Your task to perform on an android device: toggle show notifications on the lock screen Image 0: 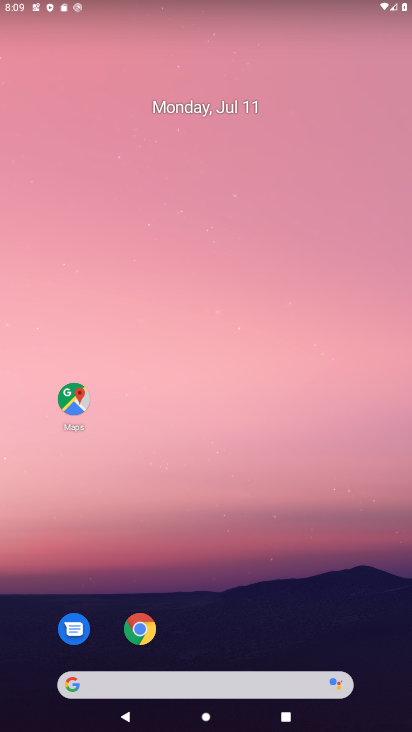
Step 0: drag from (254, 639) to (211, 133)
Your task to perform on an android device: toggle show notifications on the lock screen Image 1: 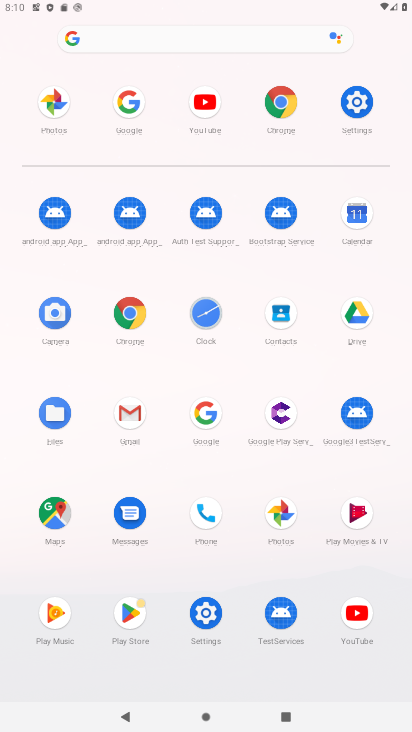
Step 1: click (359, 99)
Your task to perform on an android device: toggle show notifications on the lock screen Image 2: 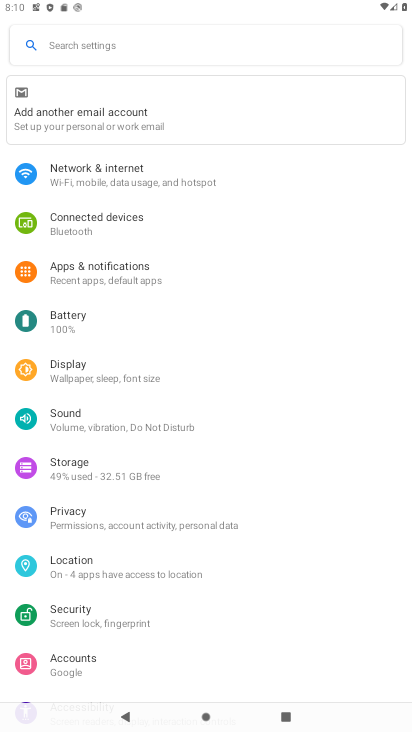
Step 2: click (119, 270)
Your task to perform on an android device: toggle show notifications on the lock screen Image 3: 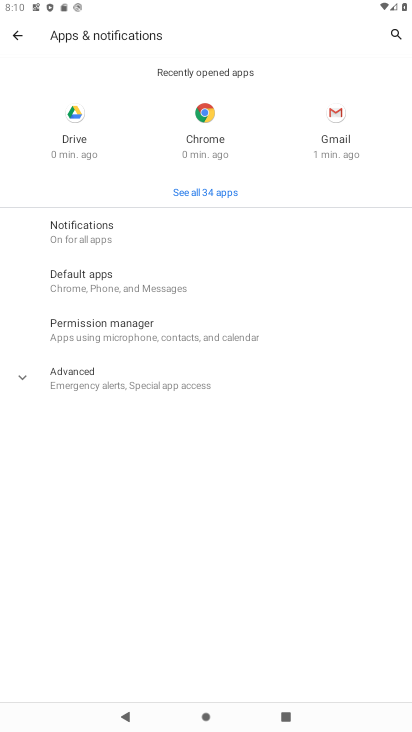
Step 3: click (80, 220)
Your task to perform on an android device: toggle show notifications on the lock screen Image 4: 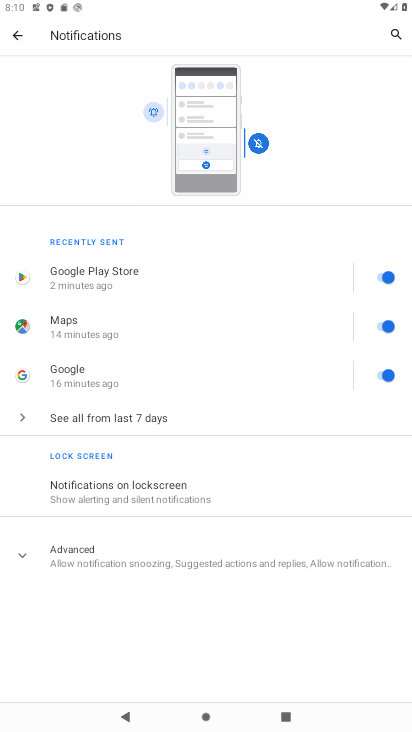
Step 4: click (132, 494)
Your task to perform on an android device: toggle show notifications on the lock screen Image 5: 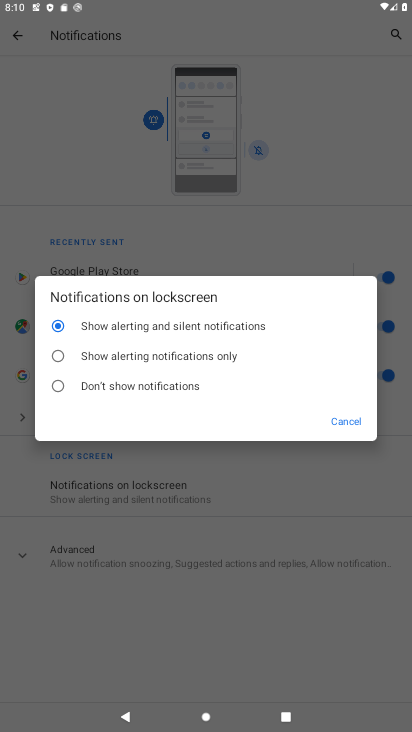
Step 5: click (59, 387)
Your task to perform on an android device: toggle show notifications on the lock screen Image 6: 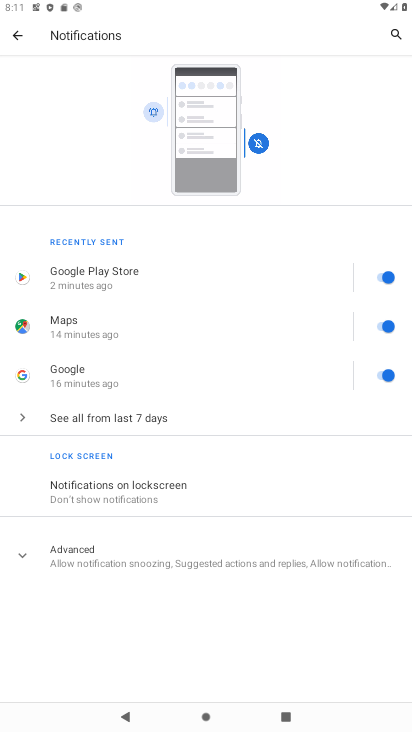
Step 6: task complete